Your task to perform on an android device: turn off data saver in the chrome app Image 0: 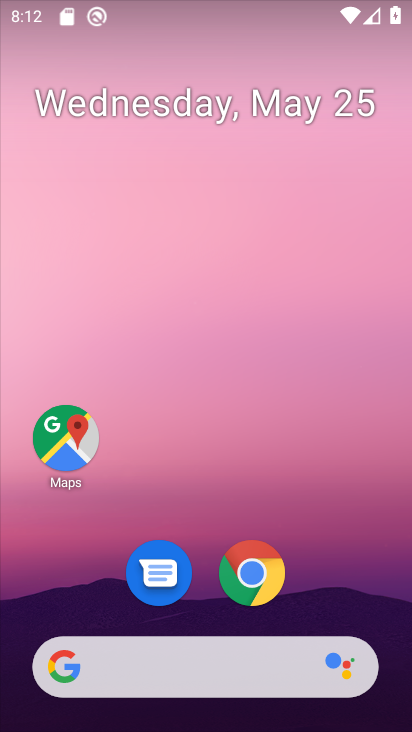
Step 0: click (252, 574)
Your task to perform on an android device: turn off data saver in the chrome app Image 1: 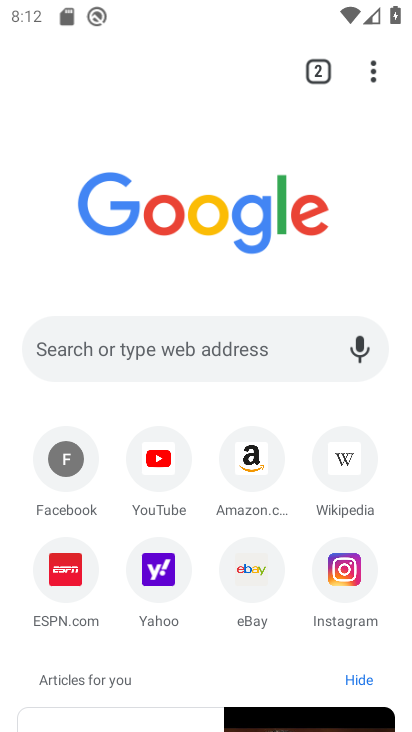
Step 1: click (358, 63)
Your task to perform on an android device: turn off data saver in the chrome app Image 2: 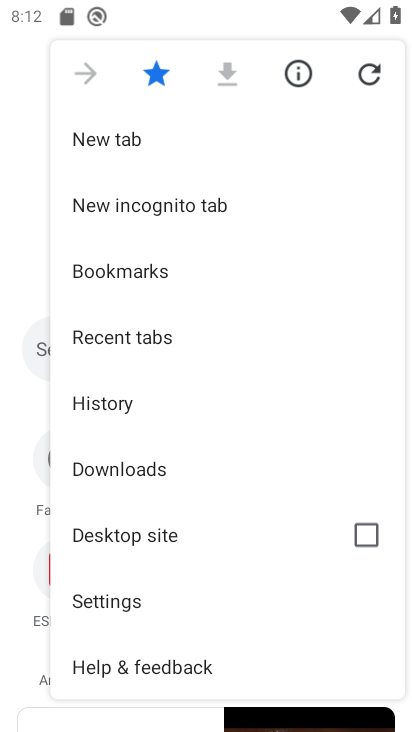
Step 2: click (73, 597)
Your task to perform on an android device: turn off data saver in the chrome app Image 3: 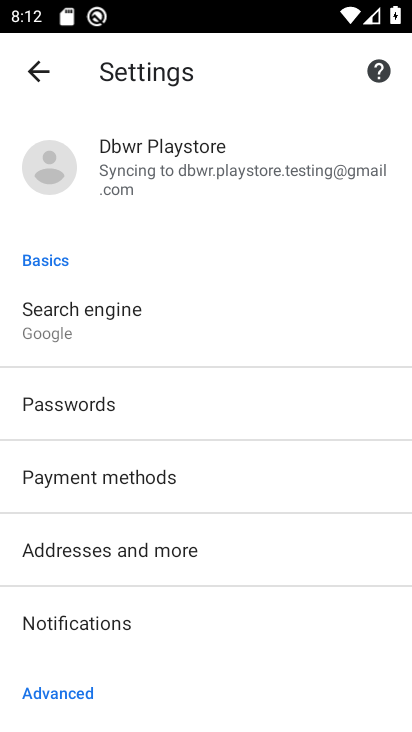
Step 3: drag from (239, 685) to (227, 426)
Your task to perform on an android device: turn off data saver in the chrome app Image 4: 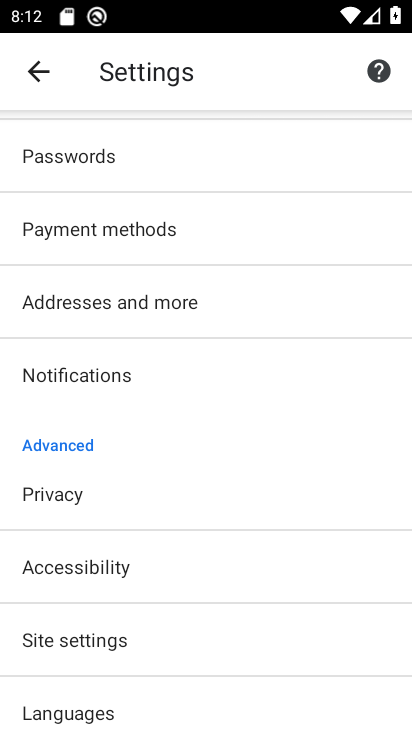
Step 4: click (102, 635)
Your task to perform on an android device: turn off data saver in the chrome app Image 5: 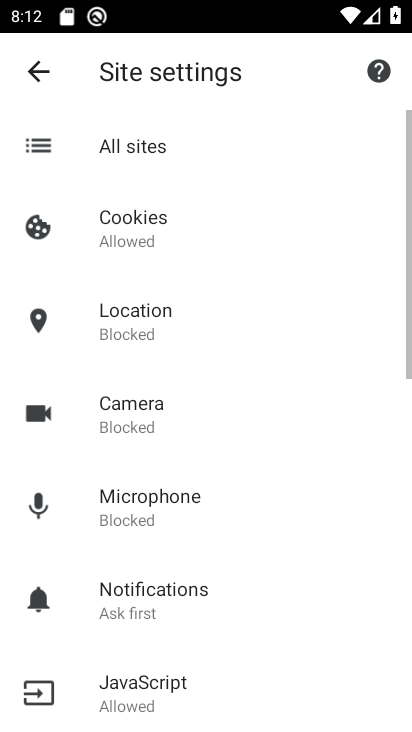
Step 5: press back button
Your task to perform on an android device: turn off data saver in the chrome app Image 6: 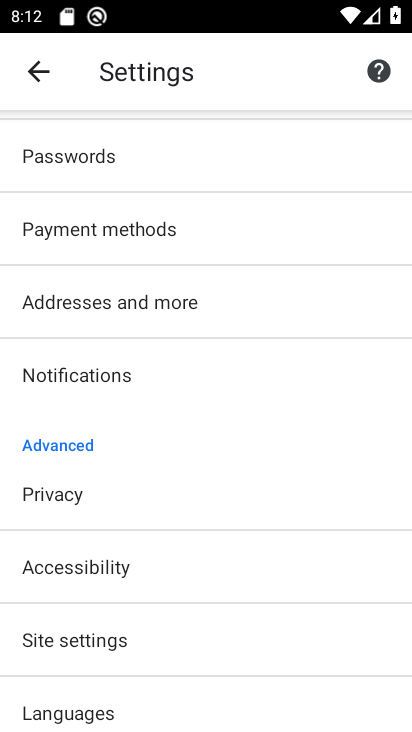
Step 6: drag from (186, 709) to (186, 451)
Your task to perform on an android device: turn off data saver in the chrome app Image 7: 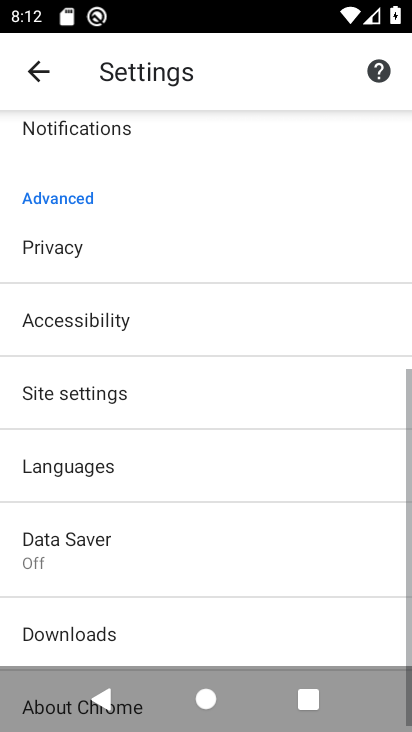
Step 7: click (67, 548)
Your task to perform on an android device: turn off data saver in the chrome app Image 8: 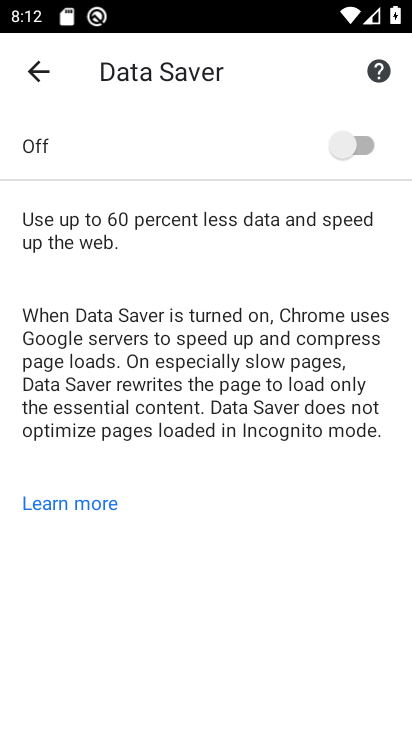
Step 8: task complete